Your task to perform on an android device: check storage Image 0: 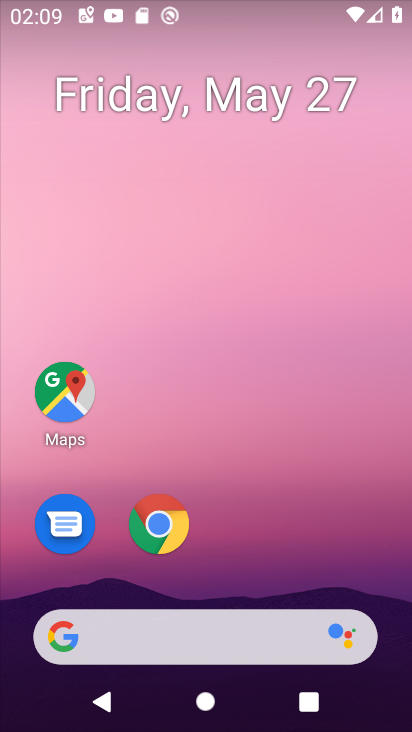
Step 0: drag from (271, 553) to (276, 47)
Your task to perform on an android device: check storage Image 1: 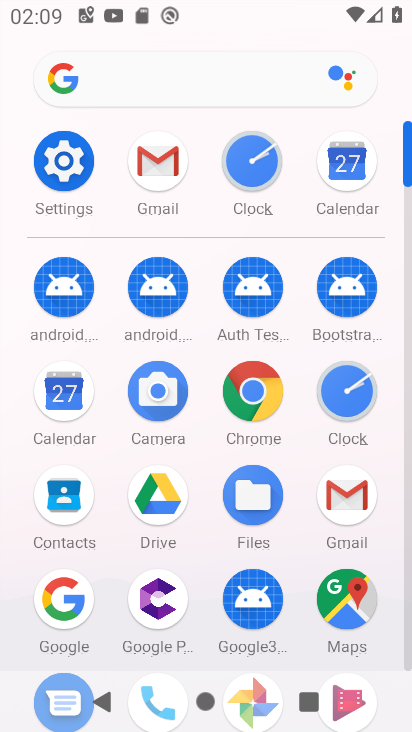
Step 1: click (60, 157)
Your task to perform on an android device: check storage Image 2: 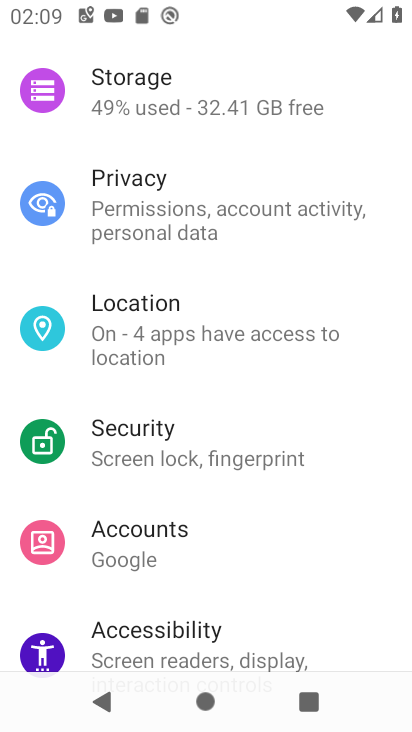
Step 2: click (231, 84)
Your task to perform on an android device: check storage Image 3: 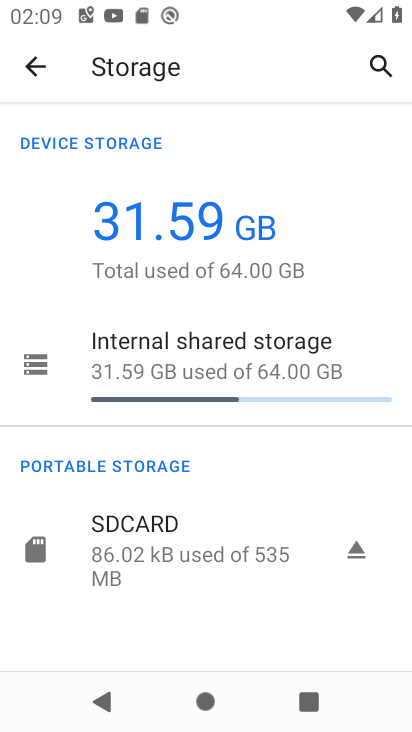
Step 3: task complete